Your task to perform on an android device: Go to settings Image 0: 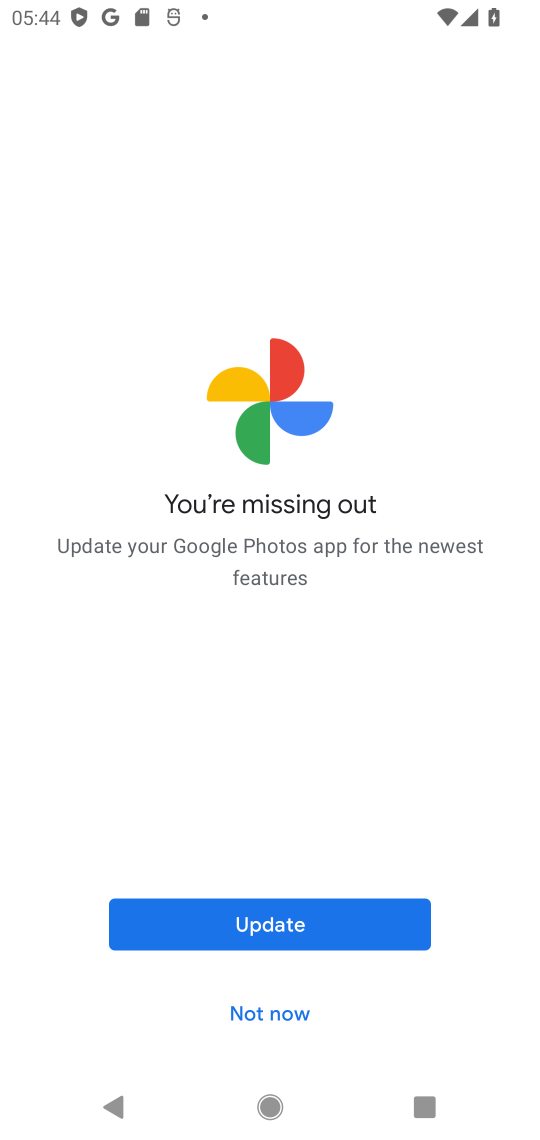
Step 0: press home button
Your task to perform on an android device: Go to settings Image 1: 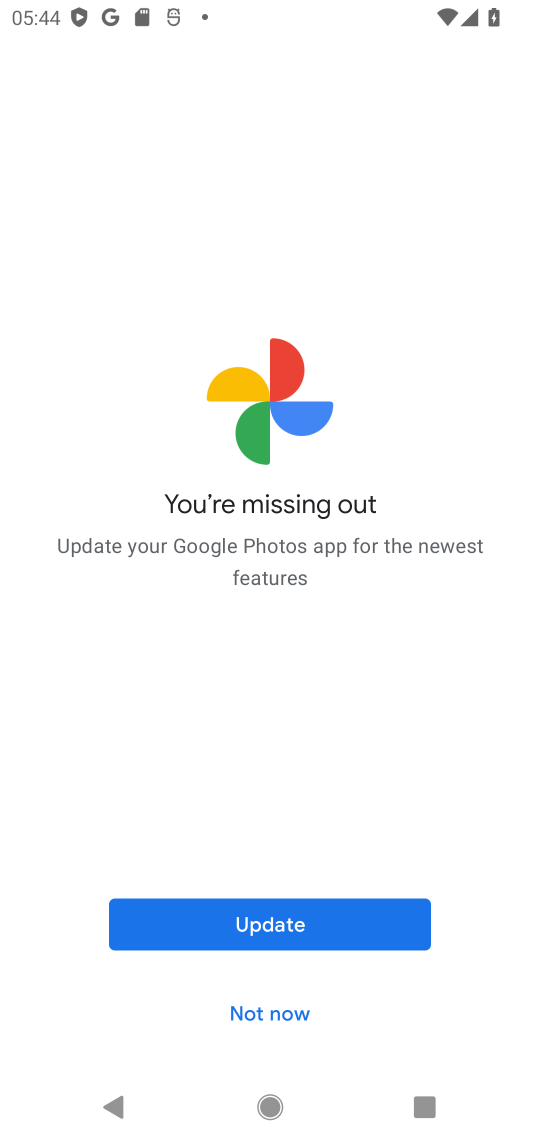
Step 1: press home button
Your task to perform on an android device: Go to settings Image 2: 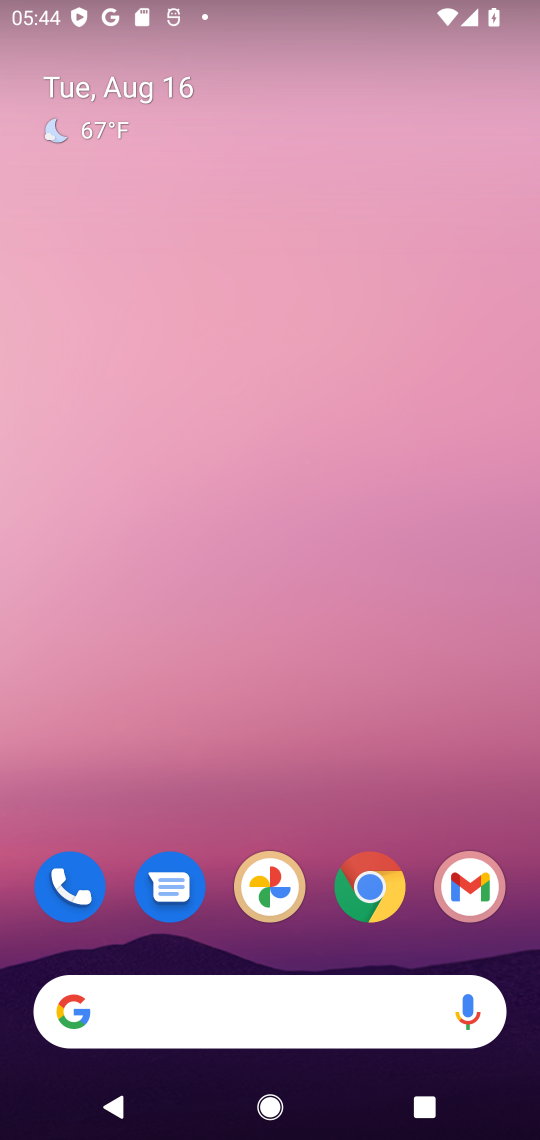
Step 2: drag from (334, 783) to (479, 14)
Your task to perform on an android device: Go to settings Image 3: 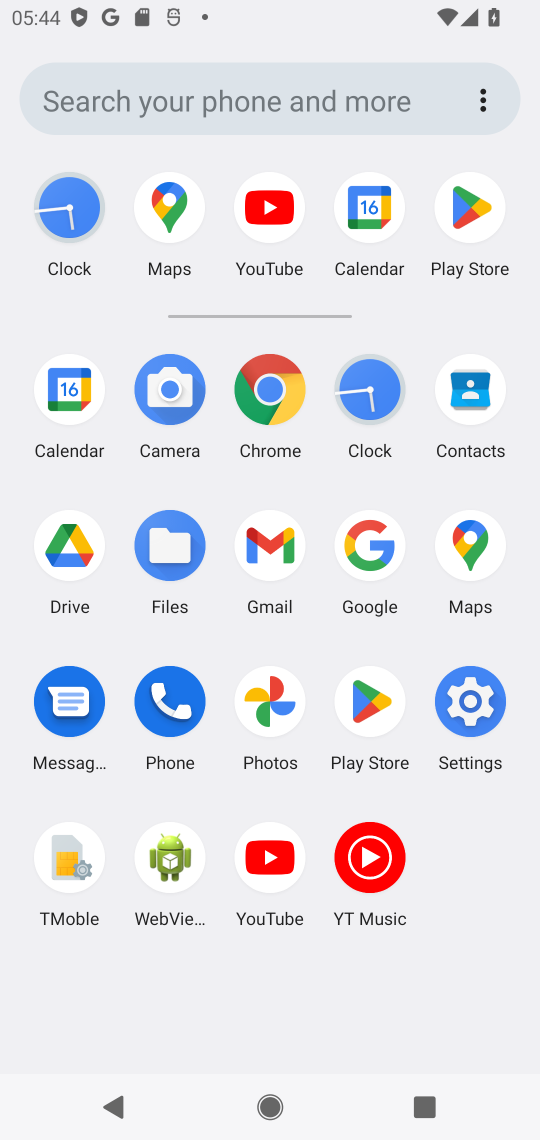
Step 3: click (460, 705)
Your task to perform on an android device: Go to settings Image 4: 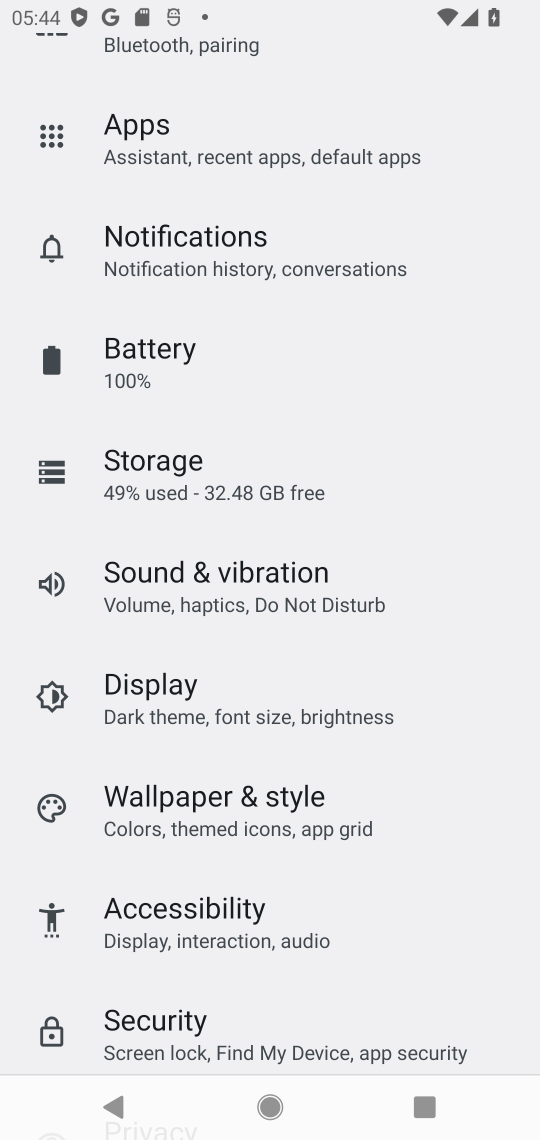
Step 4: task complete